Your task to perform on an android device: Go to Google Image 0: 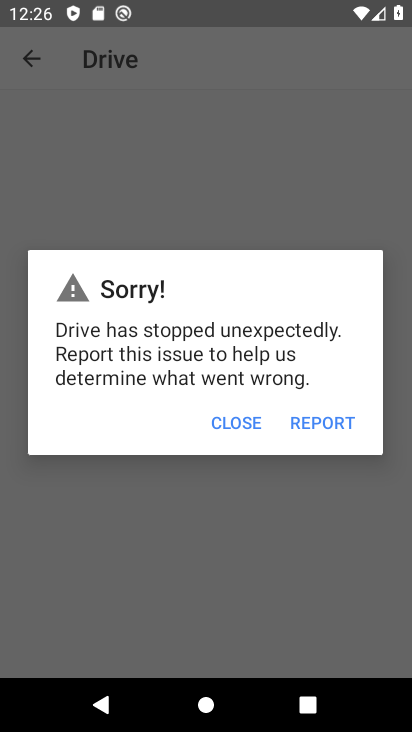
Step 0: press back button
Your task to perform on an android device: Go to Google Image 1: 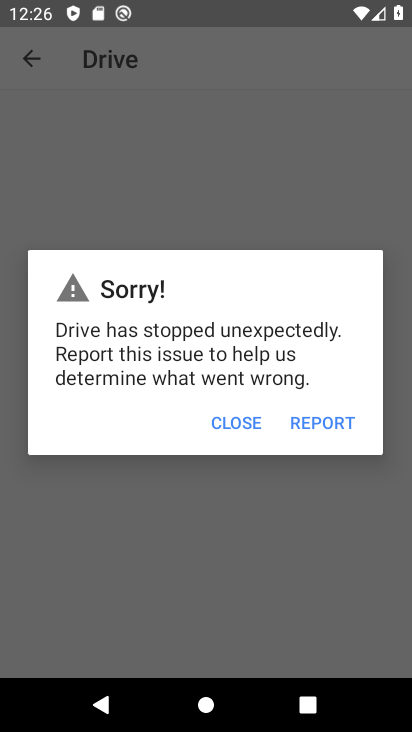
Step 1: press home button
Your task to perform on an android device: Go to Google Image 2: 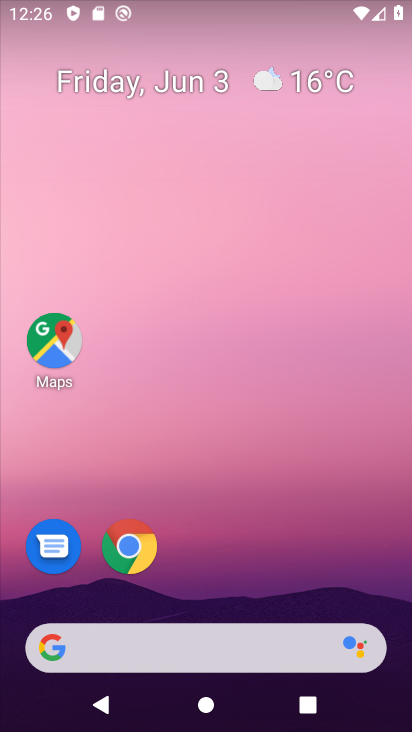
Step 2: drag from (264, 562) to (251, 114)
Your task to perform on an android device: Go to Google Image 3: 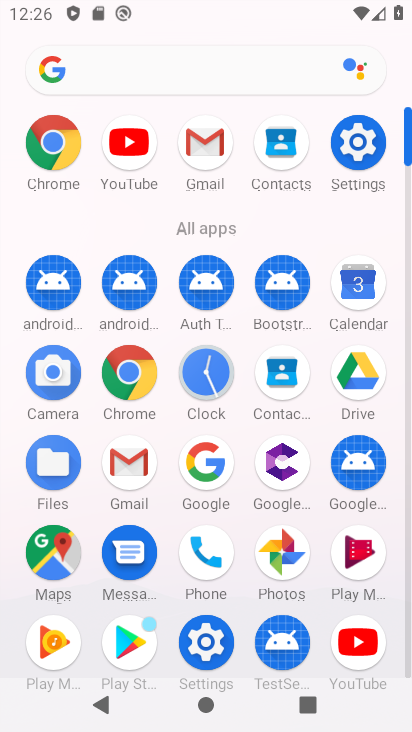
Step 3: click (216, 473)
Your task to perform on an android device: Go to Google Image 4: 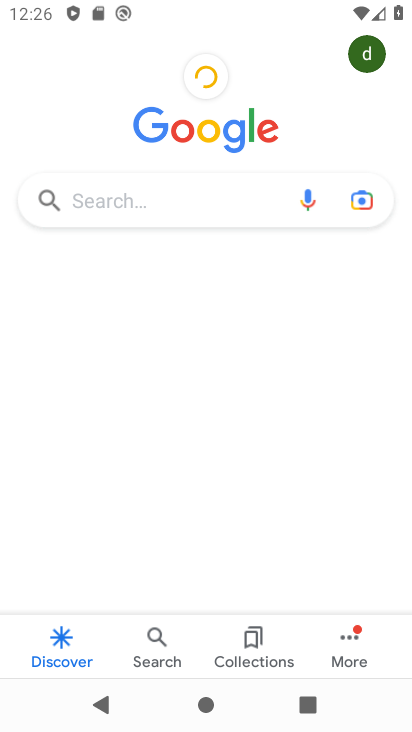
Step 4: task complete